Your task to perform on an android device: Check my gmail inbox Image 0: 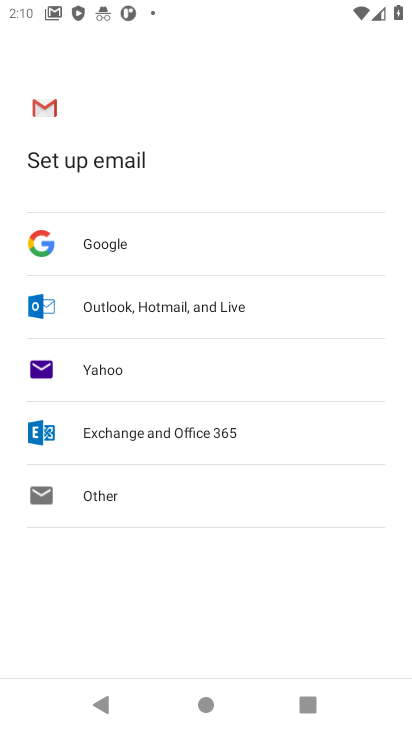
Step 0: press home button
Your task to perform on an android device: Check my gmail inbox Image 1: 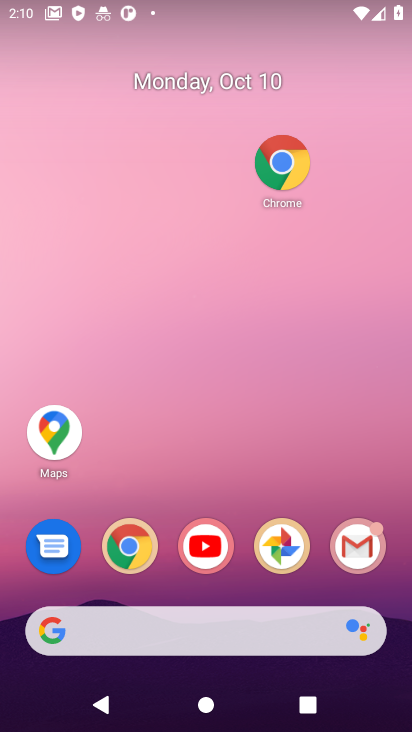
Step 1: click (347, 542)
Your task to perform on an android device: Check my gmail inbox Image 2: 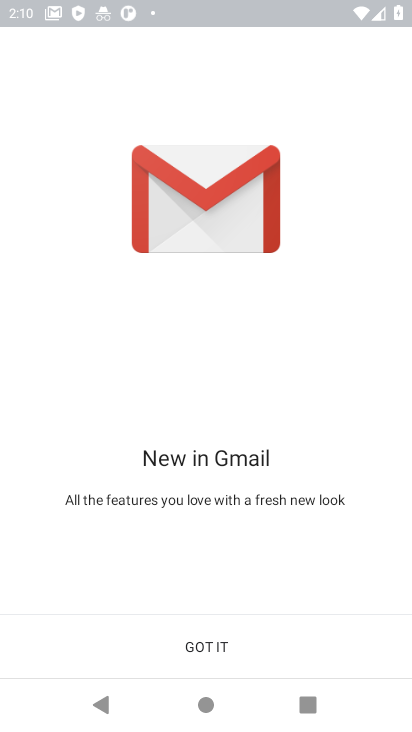
Step 2: click (239, 651)
Your task to perform on an android device: Check my gmail inbox Image 3: 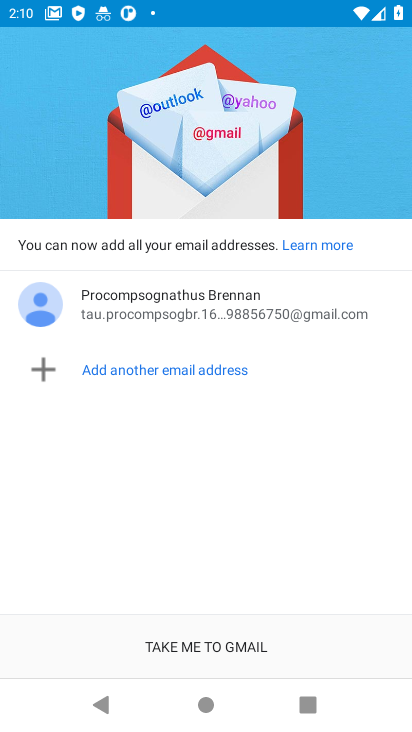
Step 3: click (247, 633)
Your task to perform on an android device: Check my gmail inbox Image 4: 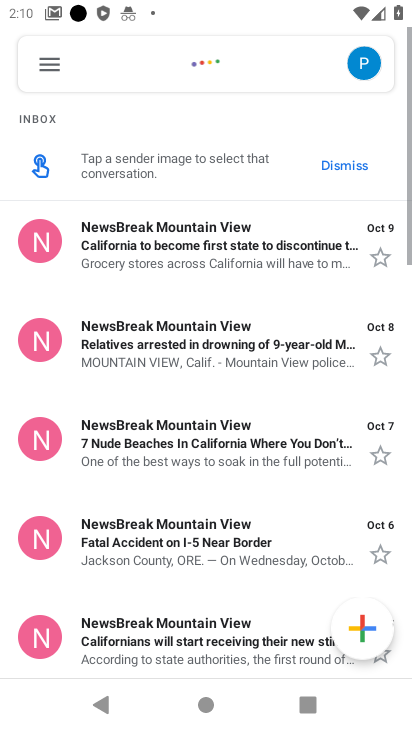
Step 4: click (52, 66)
Your task to perform on an android device: Check my gmail inbox Image 5: 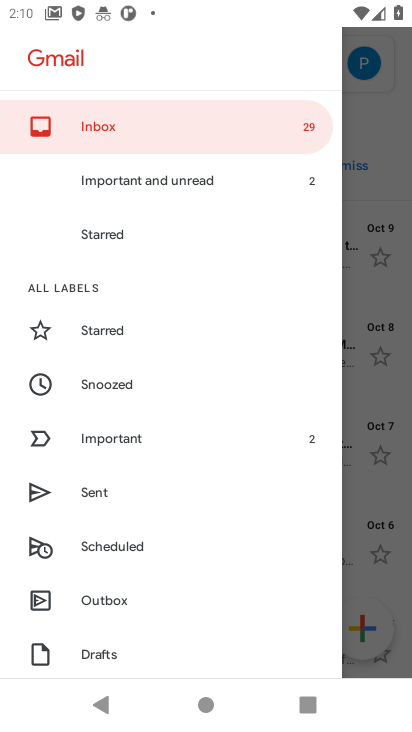
Step 5: click (95, 124)
Your task to perform on an android device: Check my gmail inbox Image 6: 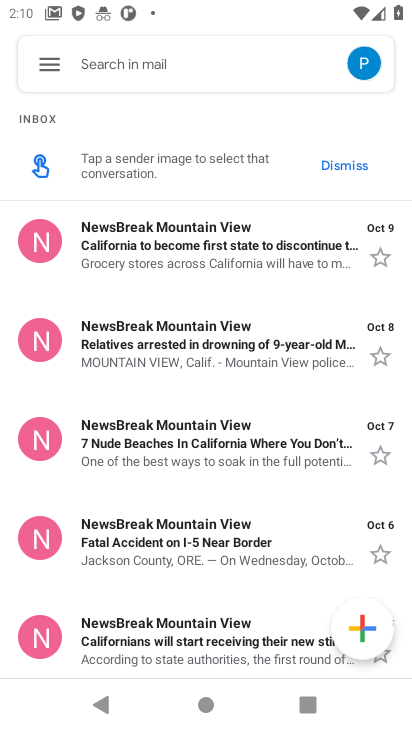
Step 6: task complete